Your task to perform on an android device: turn off smart reply in the gmail app Image 0: 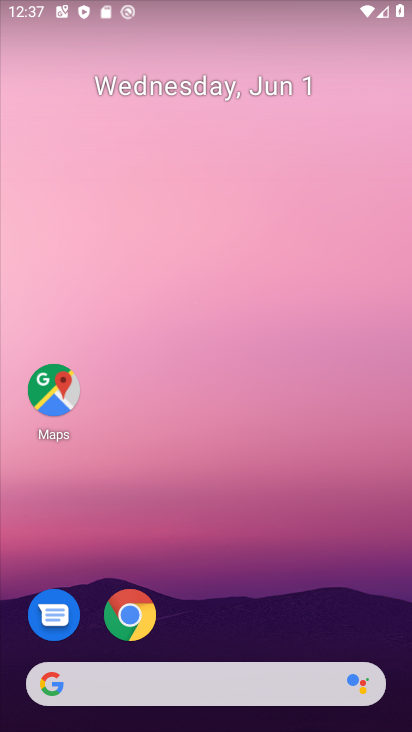
Step 0: task complete